Your task to perform on an android device: turn off notifications settings in the gmail app Image 0: 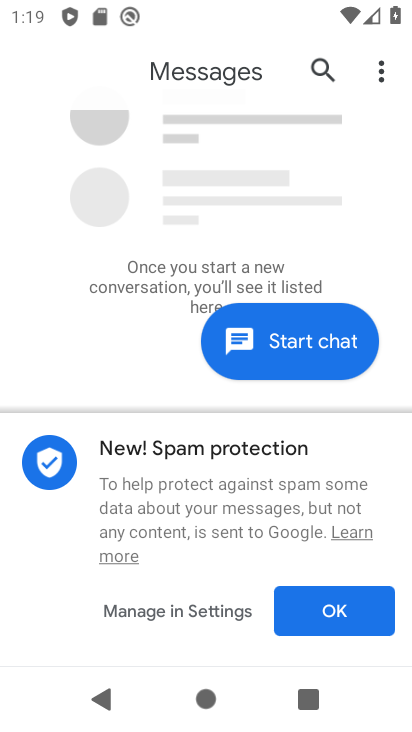
Step 0: press back button
Your task to perform on an android device: turn off notifications settings in the gmail app Image 1: 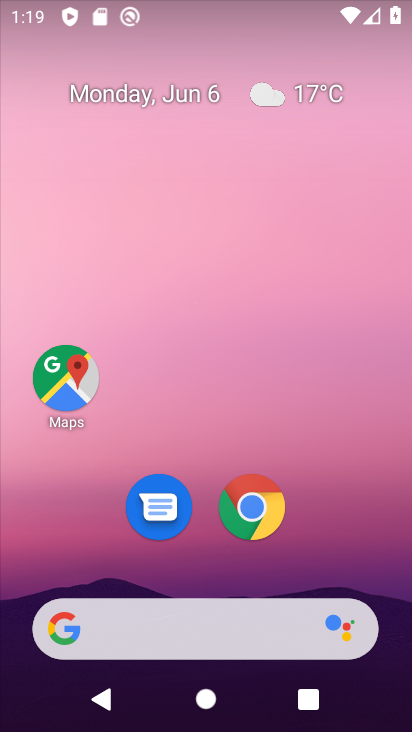
Step 1: drag from (371, 562) to (228, 15)
Your task to perform on an android device: turn off notifications settings in the gmail app Image 2: 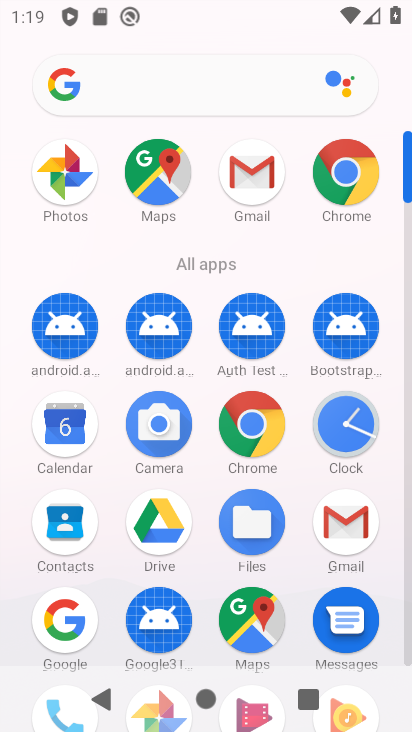
Step 2: drag from (17, 535) to (21, 229)
Your task to perform on an android device: turn off notifications settings in the gmail app Image 3: 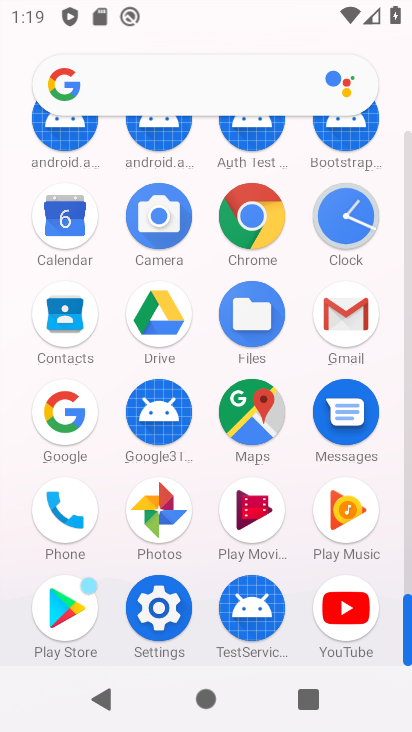
Step 3: click (348, 306)
Your task to perform on an android device: turn off notifications settings in the gmail app Image 4: 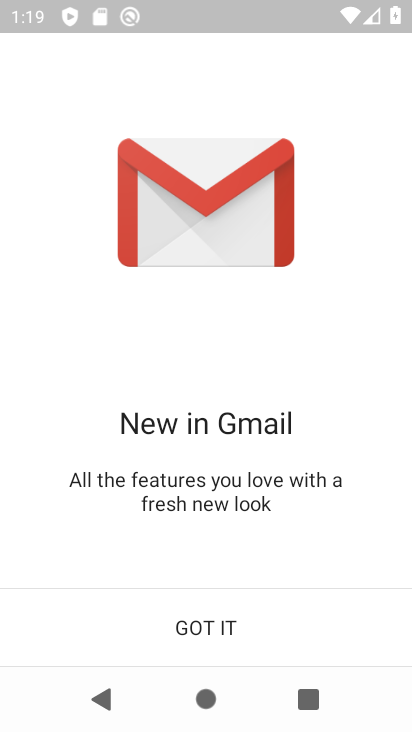
Step 4: click (193, 622)
Your task to perform on an android device: turn off notifications settings in the gmail app Image 5: 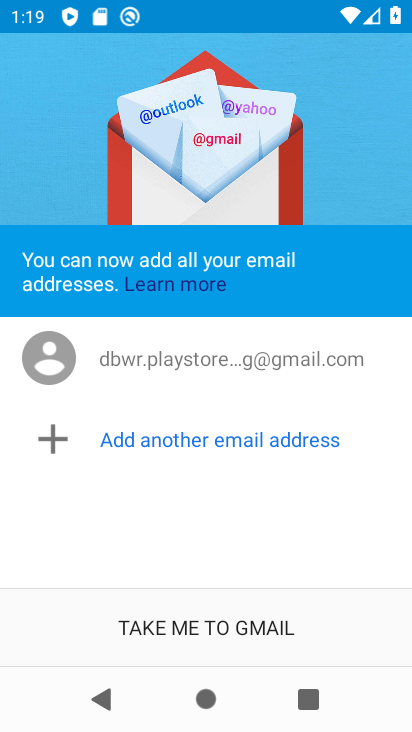
Step 5: click (201, 600)
Your task to perform on an android device: turn off notifications settings in the gmail app Image 6: 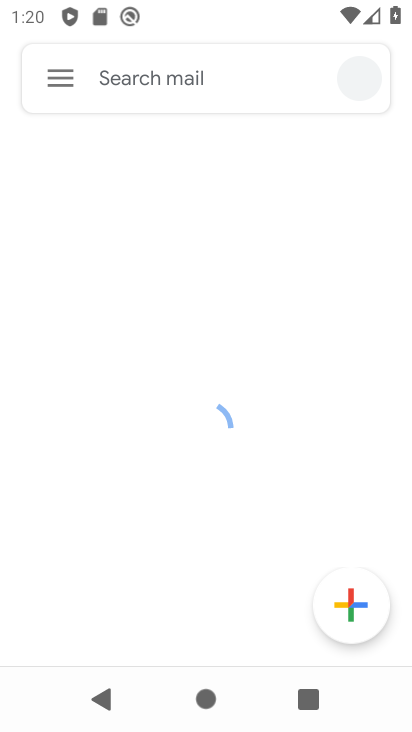
Step 6: click (58, 81)
Your task to perform on an android device: turn off notifications settings in the gmail app Image 7: 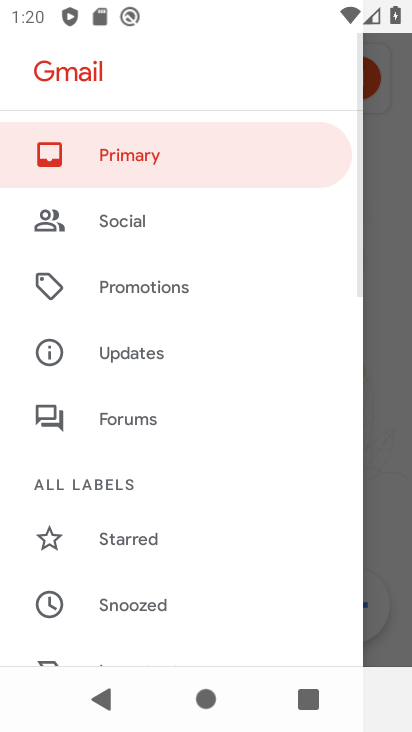
Step 7: drag from (220, 526) to (247, 76)
Your task to perform on an android device: turn off notifications settings in the gmail app Image 8: 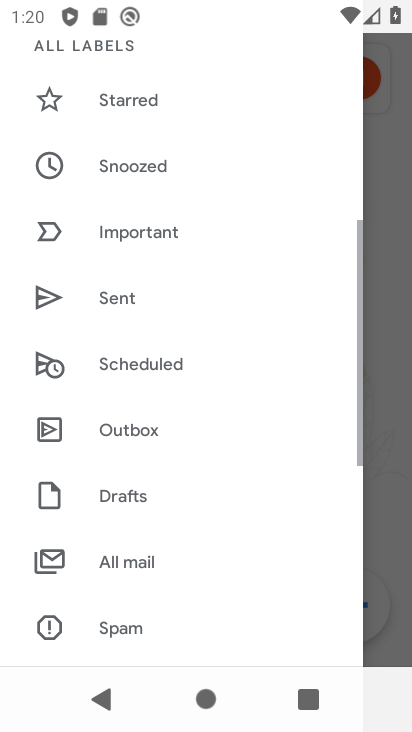
Step 8: drag from (169, 594) to (186, 97)
Your task to perform on an android device: turn off notifications settings in the gmail app Image 9: 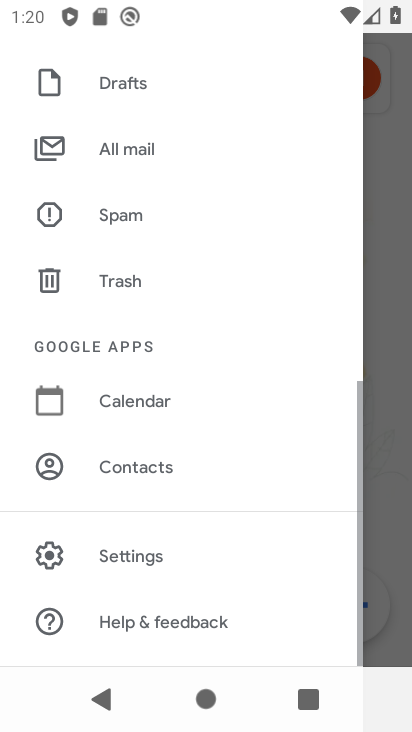
Step 9: click (142, 556)
Your task to perform on an android device: turn off notifications settings in the gmail app Image 10: 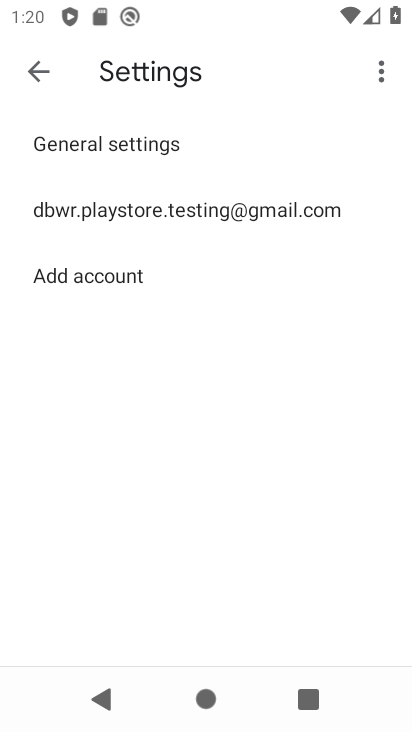
Step 10: click (153, 203)
Your task to perform on an android device: turn off notifications settings in the gmail app Image 11: 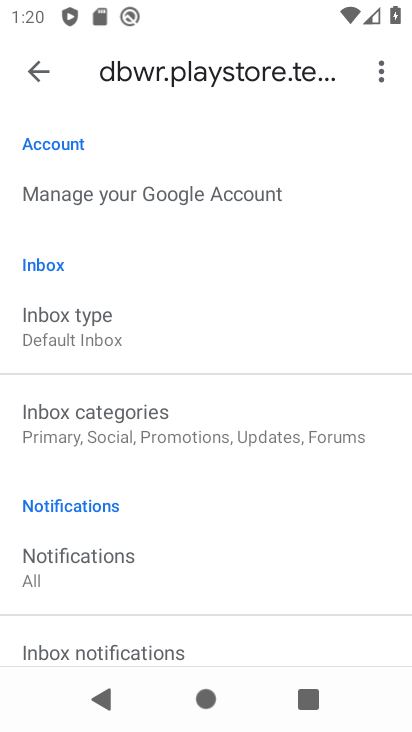
Step 11: drag from (217, 565) to (249, 215)
Your task to perform on an android device: turn off notifications settings in the gmail app Image 12: 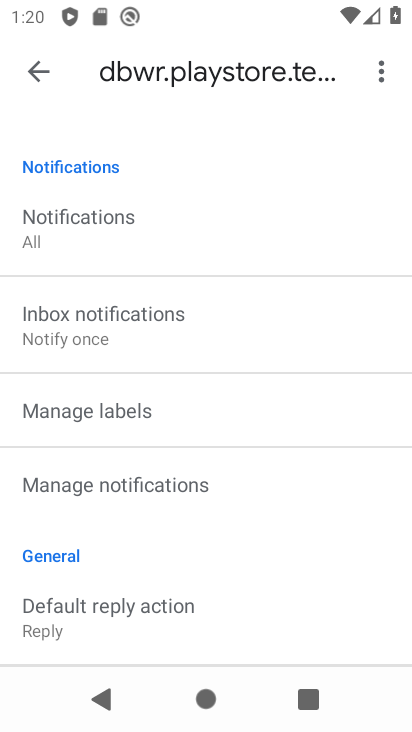
Step 12: click (184, 496)
Your task to perform on an android device: turn off notifications settings in the gmail app Image 13: 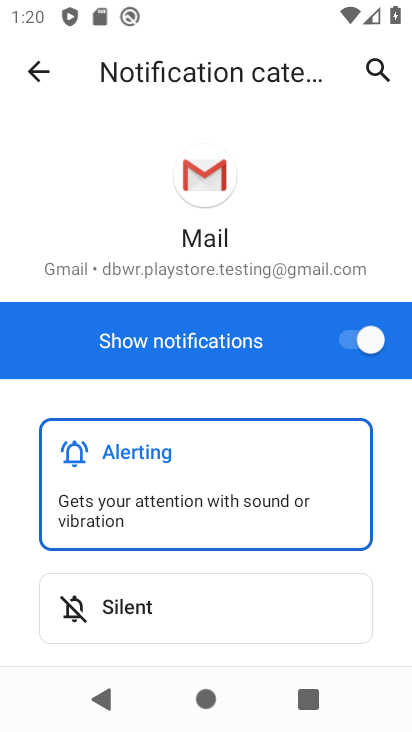
Step 13: click (343, 333)
Your task to perform on an android device: turn off notifications settings in the gmail app Image 14: 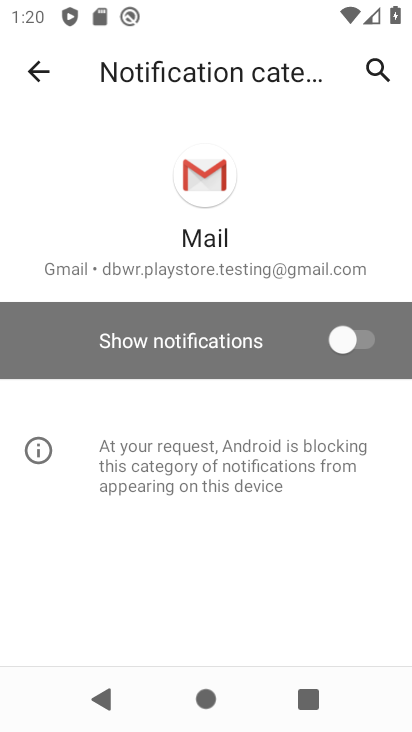
Step 14: task complete